Your task to perform on an android device: Go to notification settings Image 0: 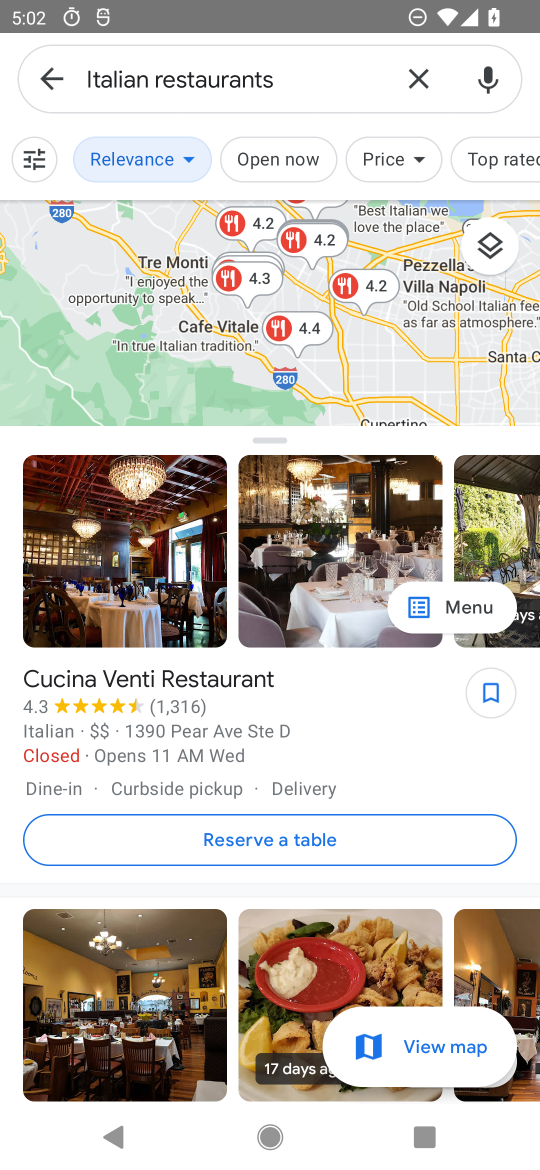
Step 0: press home button
Your task to perform on an android device: Go to notification settings Image 1: 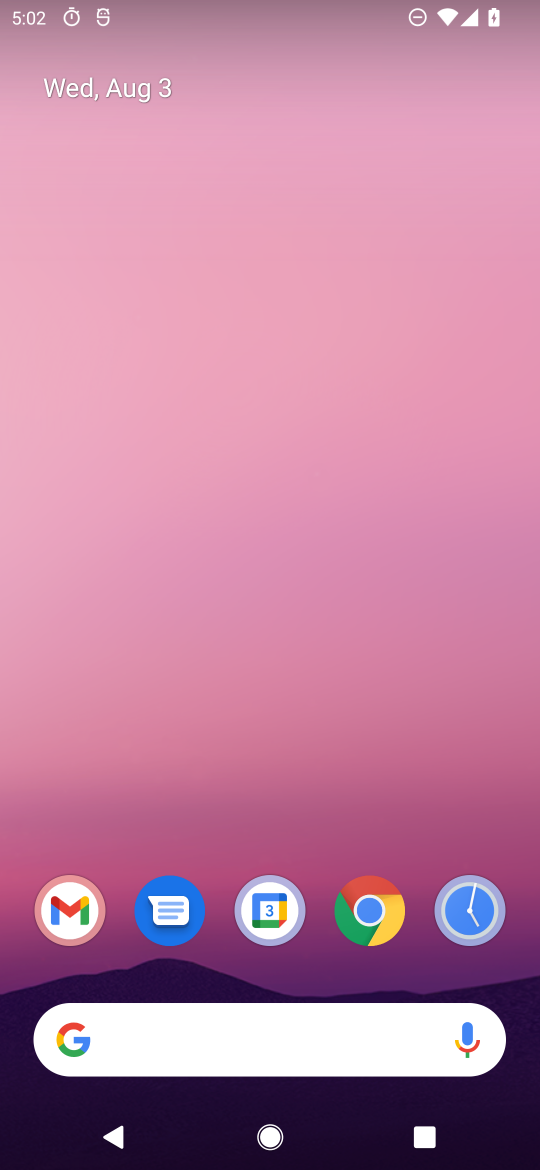
Step 1: click (372, 10)
Your task to perform on an android device: Go to notification settings Image 2: 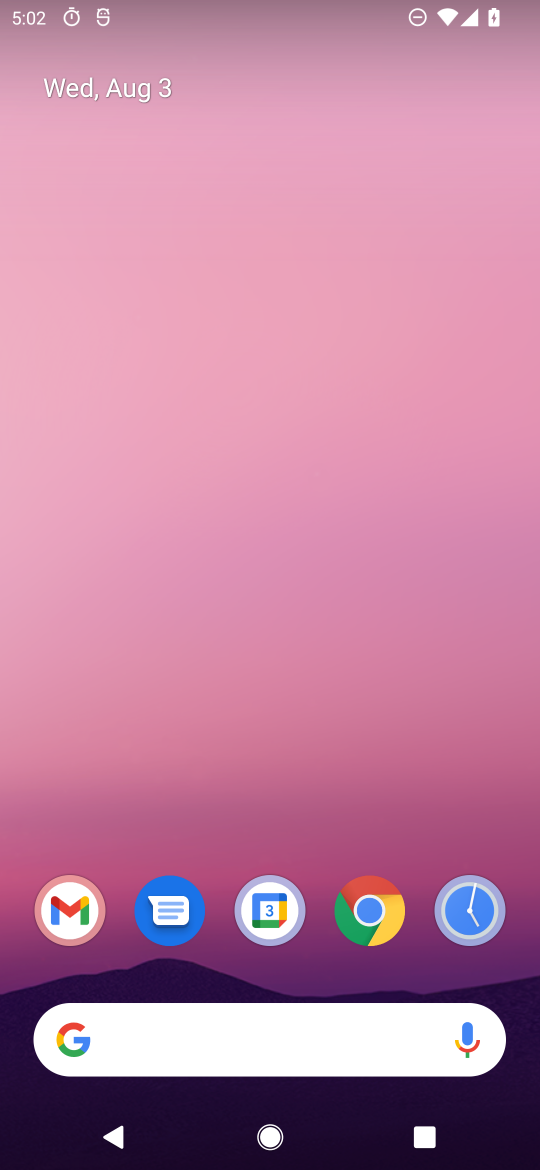
Step 2: drag from (216, 221) to (235, 132)
Your task to perform on an android device: Go to notification settings Image 3: 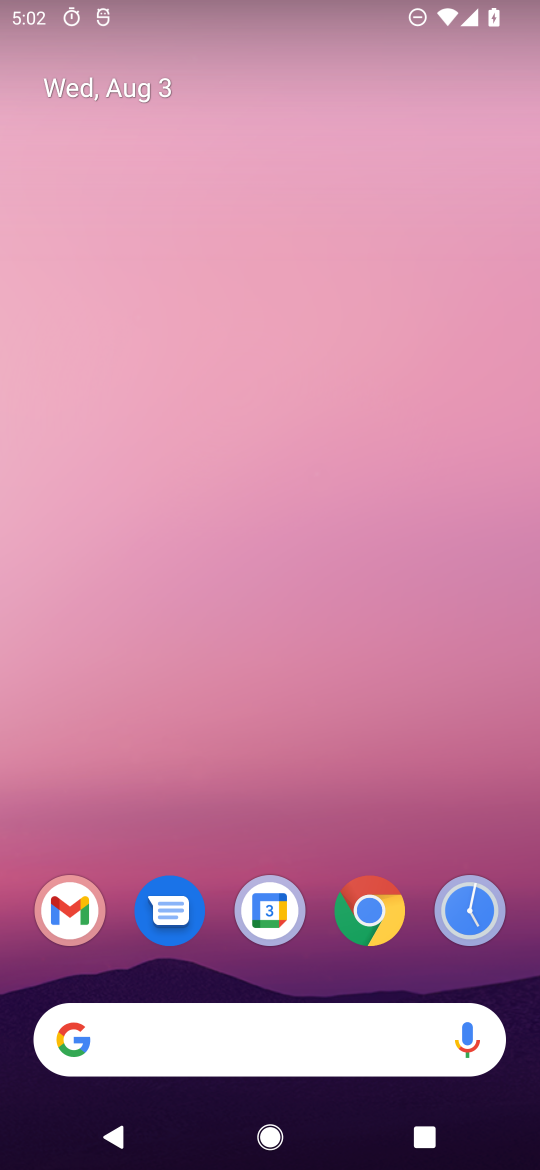
Step 3: drag from (55, 1109) to (238, 198)
Your task to perform on an android device: Go to notification settings Image 4: 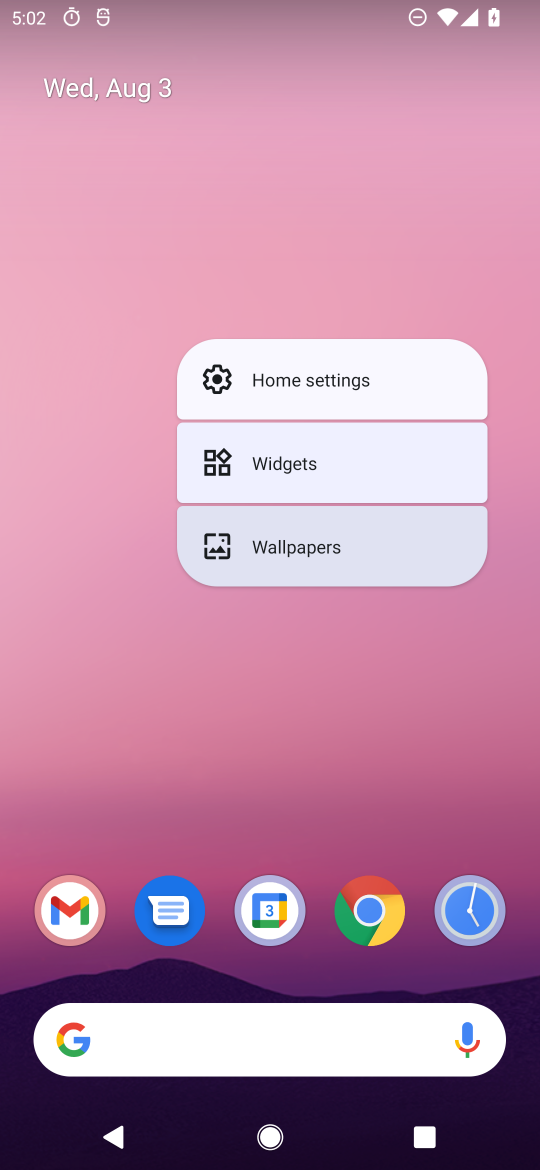
Step 4: drag from (140, 961) to (131, 149)
Your task to perform on an android device: Go to notification settings Image 5: 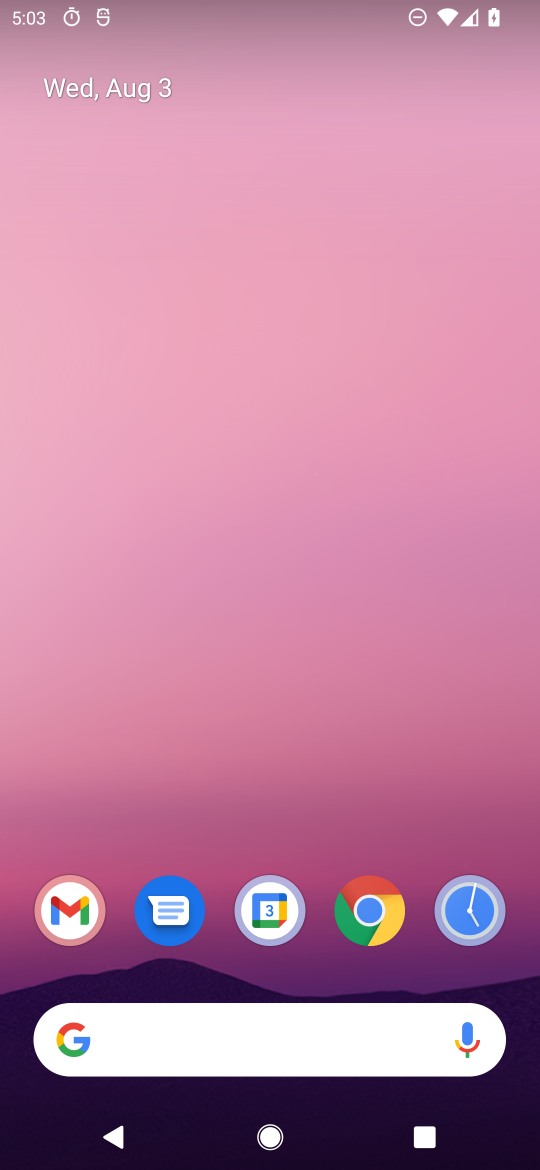
Step 5: click (339, 221)
Your task to perform on an android device: Go to notification settings Image 6: 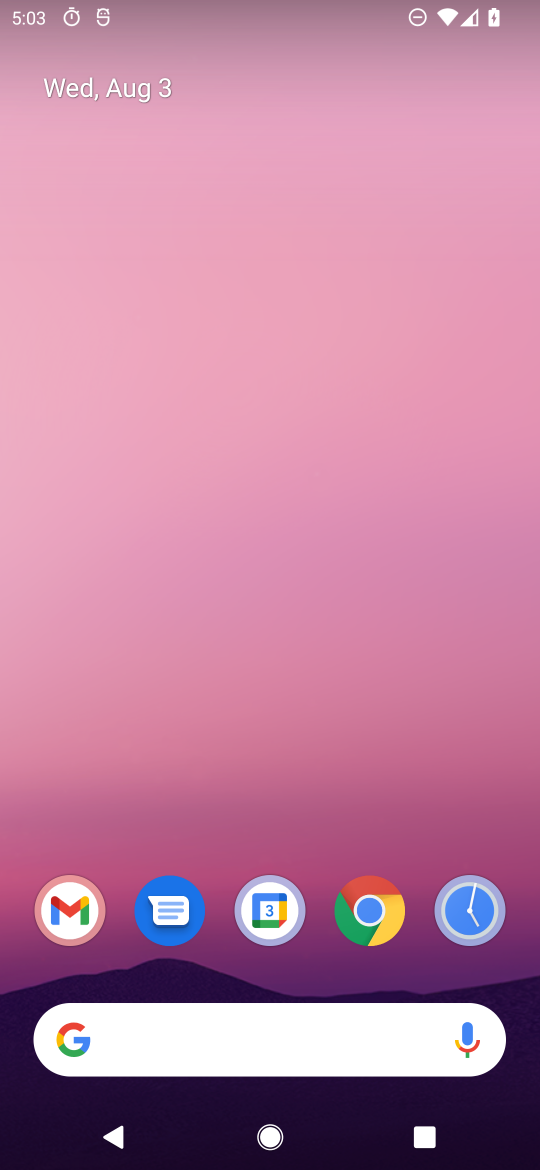
Step 6: task complete